Your task to perform on an android device: add a contact Image 0: 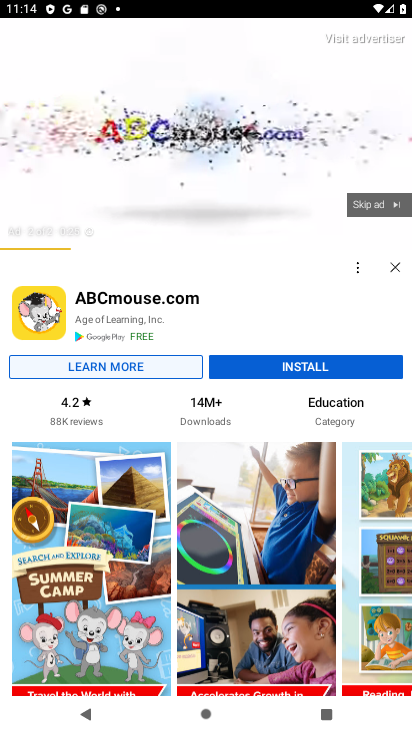
Step 0: press home button
Your task to perform on an android device: add a contact Image 1: 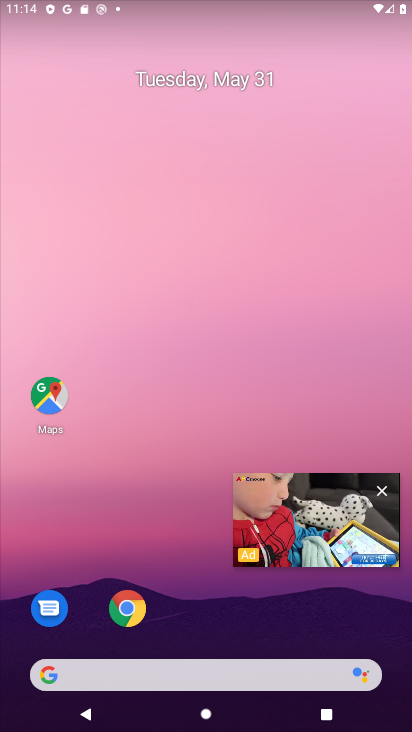
Step 1: drag from (176, 542) to (214, 0)
Your task to perform on an android device: add a contact Image 2: 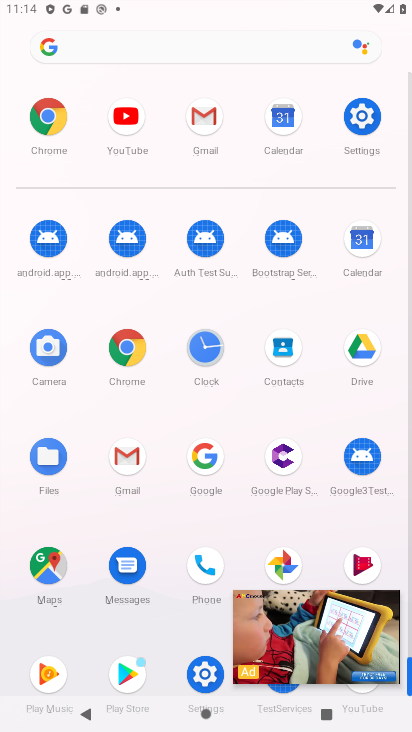
Step 2: click (372, 633)
Your task to perform on an android device: add a contact Image 3: 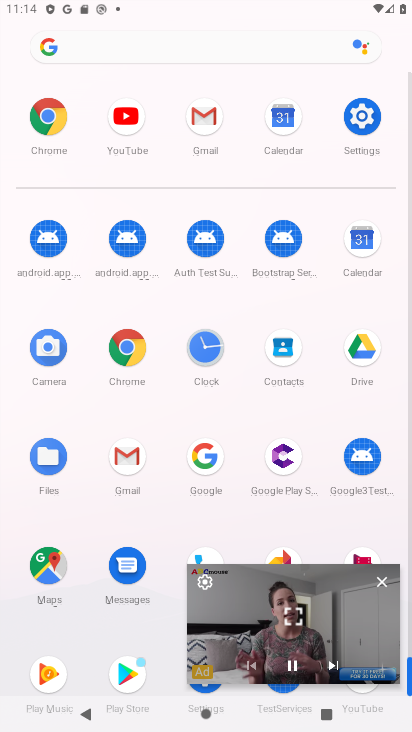
Step 3: click (376, 580)
Your task to perform on an android device: add a contact Image 4: 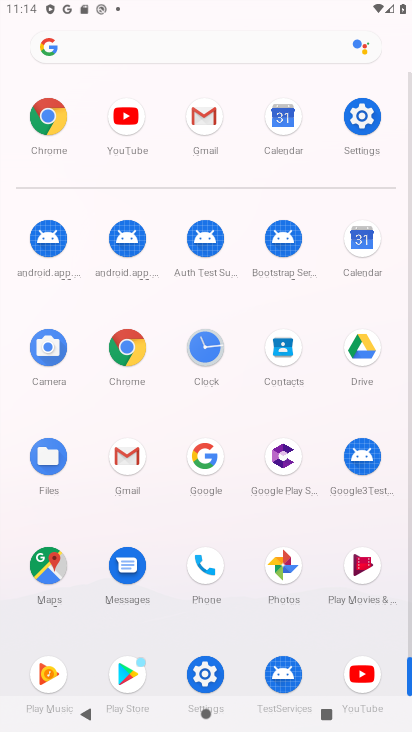
Step 4: click (283, 345)
Your task to perform on an android device: add a contact Image 5: 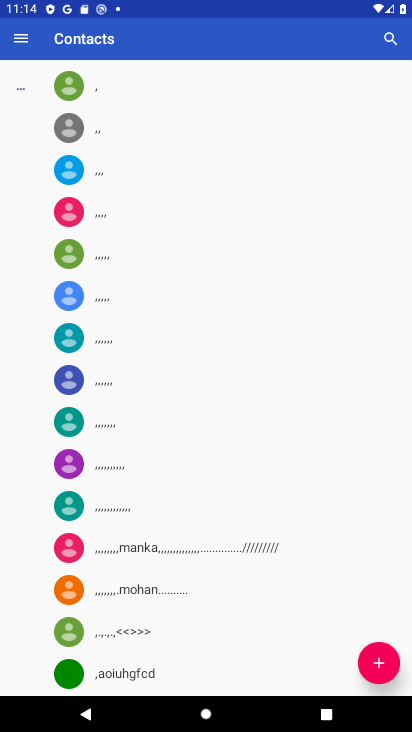
Step 5: click (380, 659)
Your task to perform on an android device: add a contact Image 6: 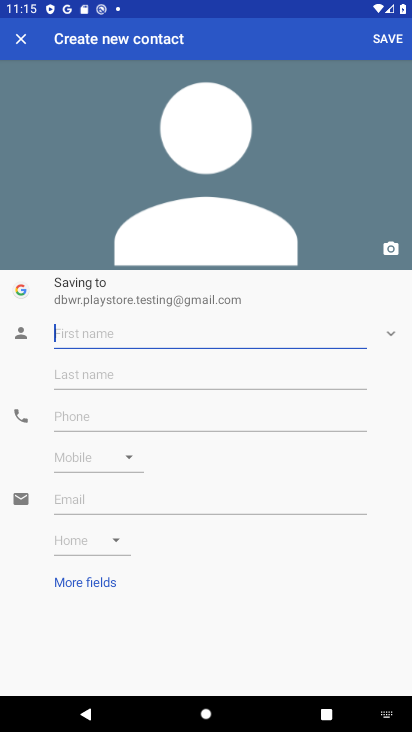
Step 6: type "vcxcvbn/.,.lp0987yt"
Your task to perform on an android device: add a contact Image 7: 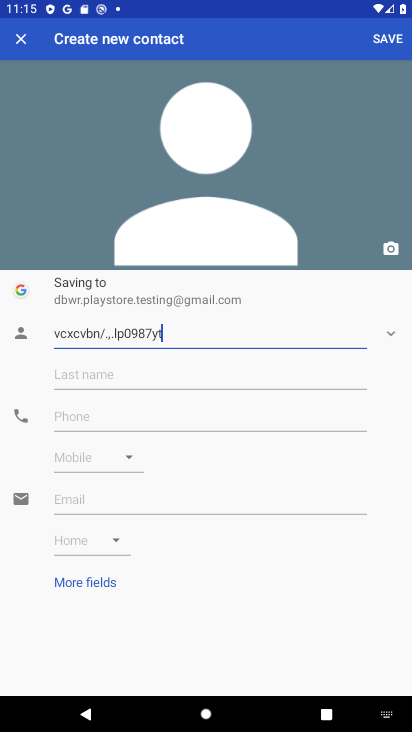
Step 7: click (100, 411)
Your task to perform on an android device: add a contact Image 8: 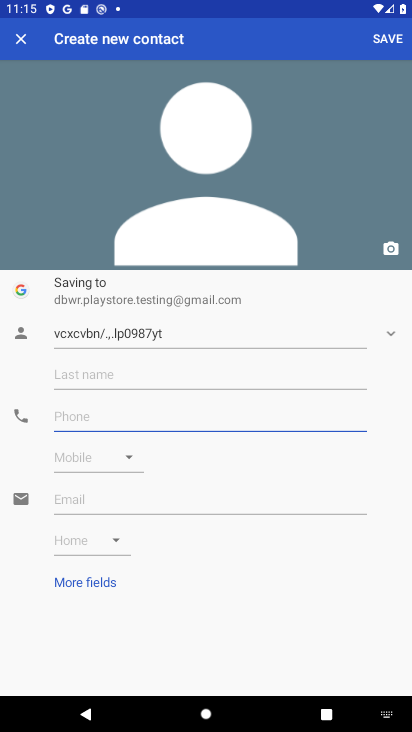
Step 8: type "76567"
Your task to perform on an android device: add a contact Image 9: 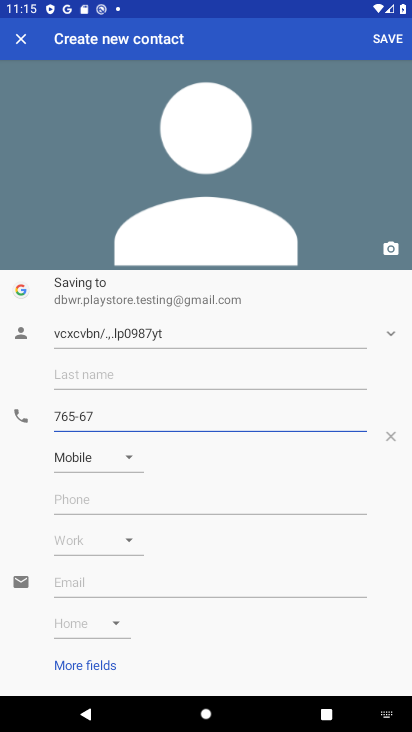
Step 9: click (388, 40)
Your task to perform on an android device: add a contact Image 10: 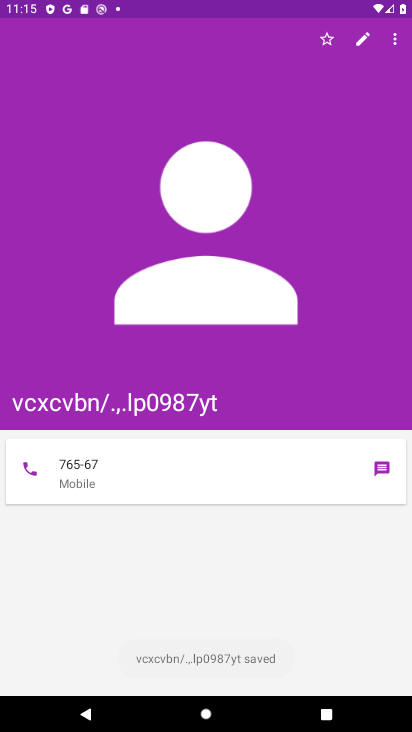
Step 10: task complete